Your task to perform on an android device: What is the speed of a skateboard? Image 0: 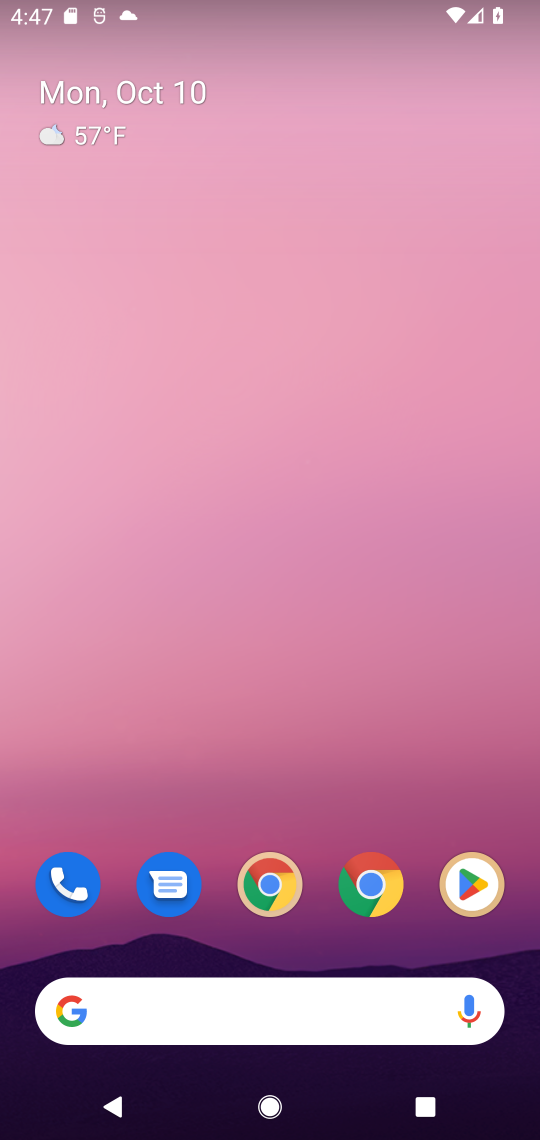
Step 0: click (385, 896)
Your task to perform on an android device: What is the speed of a skateboard? Image 1: 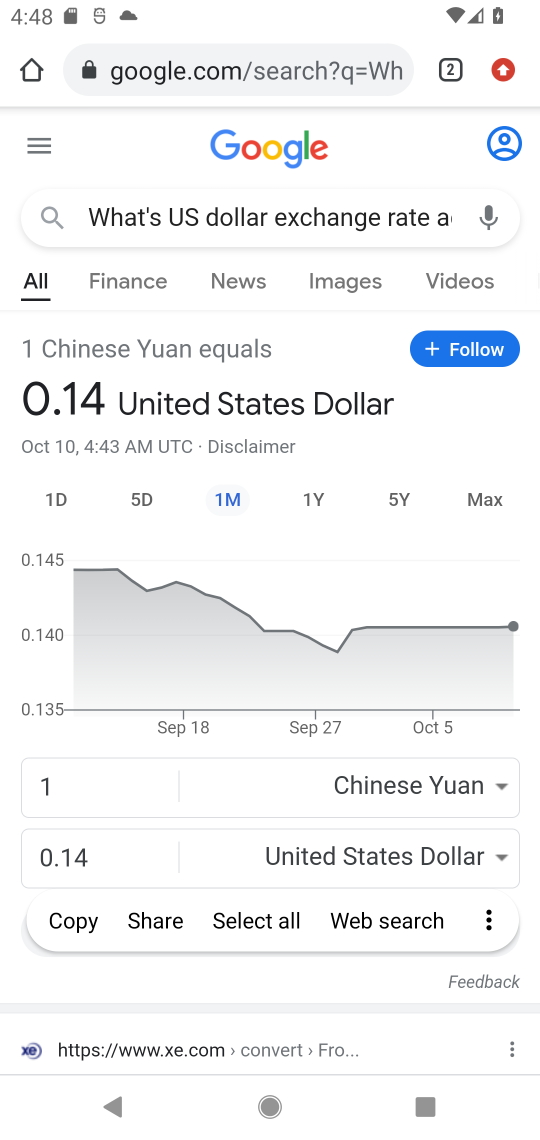
Step 1: click (254, 83)
Your task to perform on an android device: What is the speed of a skateboard? Image 2: 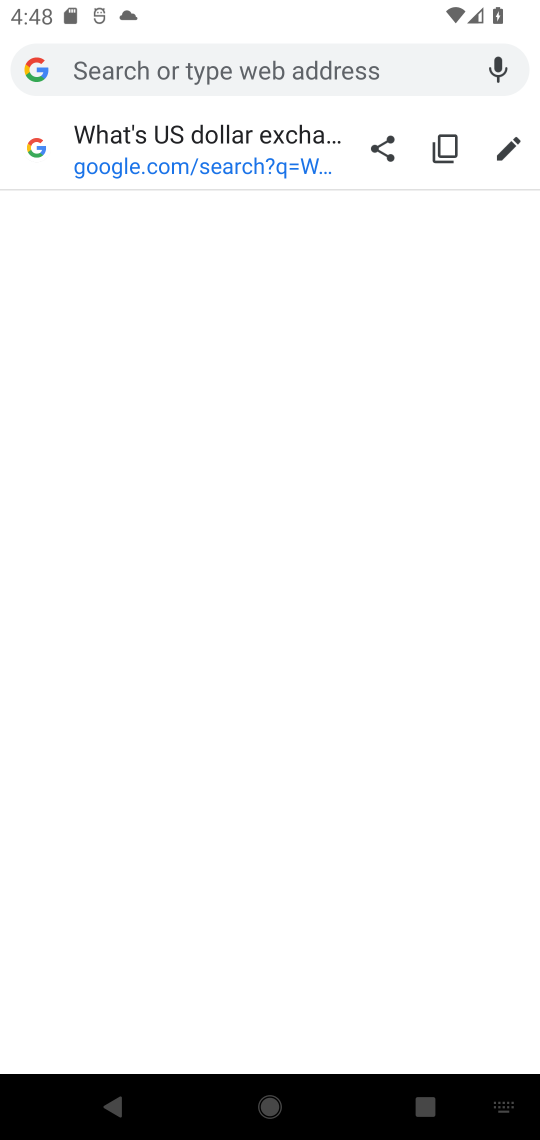
Step 2: type "What is the speed of a skateboard?"
Your task to perform on an android device: What is the speed of a skateboard? Image 3: 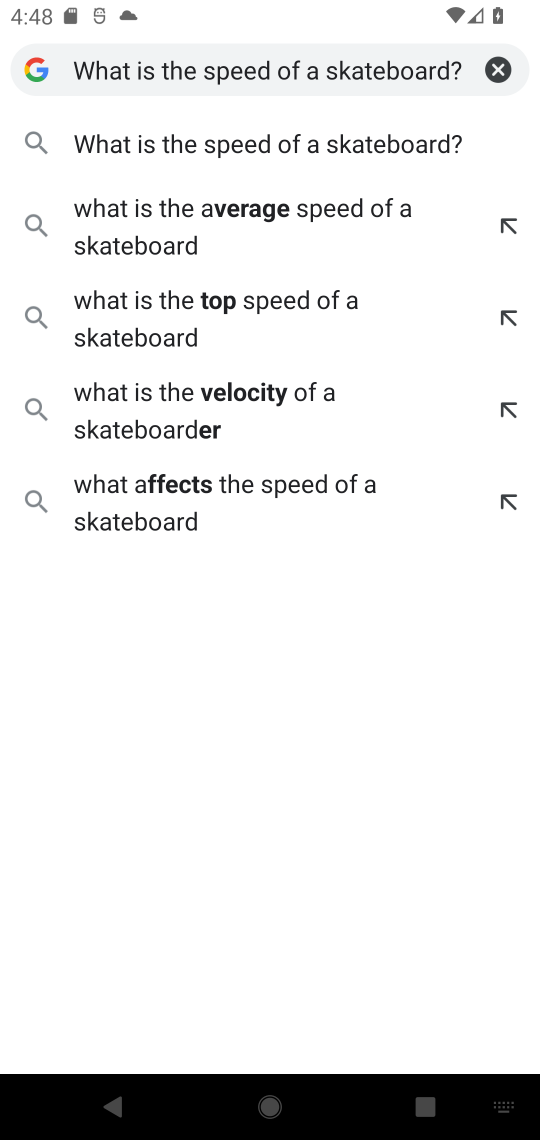
Step 3: click (356, 150)
Your task to perform on an android device: What is the speed of a skateboard? Image 4: 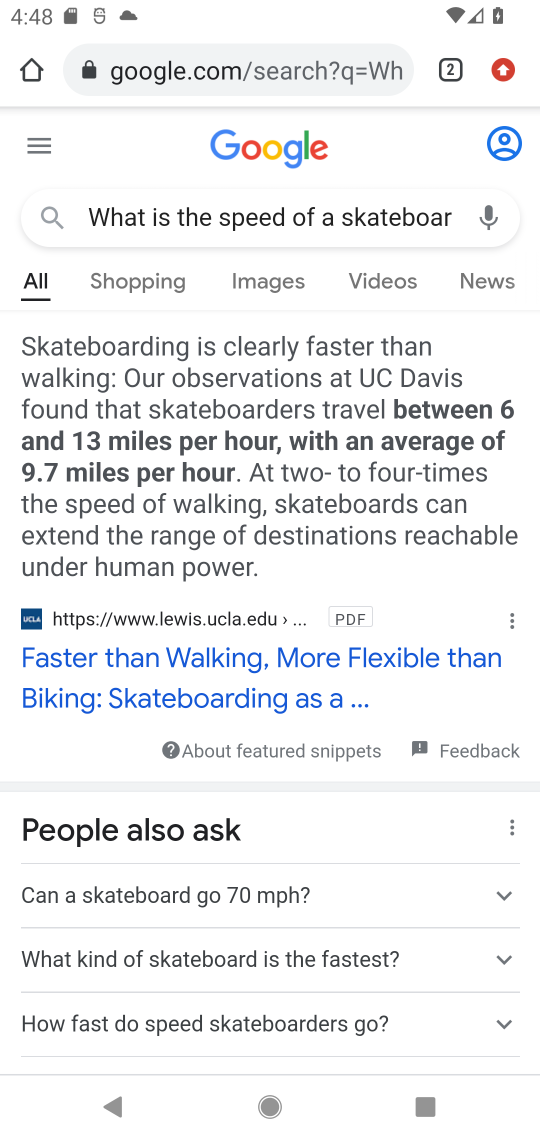
Step 4: task complete